Your task to perform on an android device: turn off picture-in-picture Image 0: 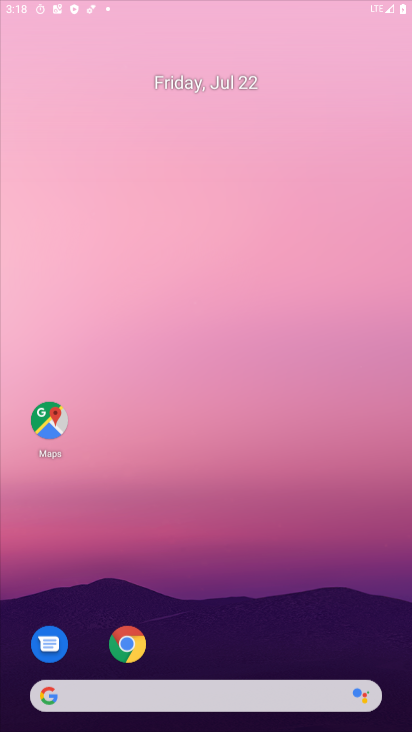
Step 0: press home button
Your task to perform on an android device: turn off picture-in-picture Image 1: 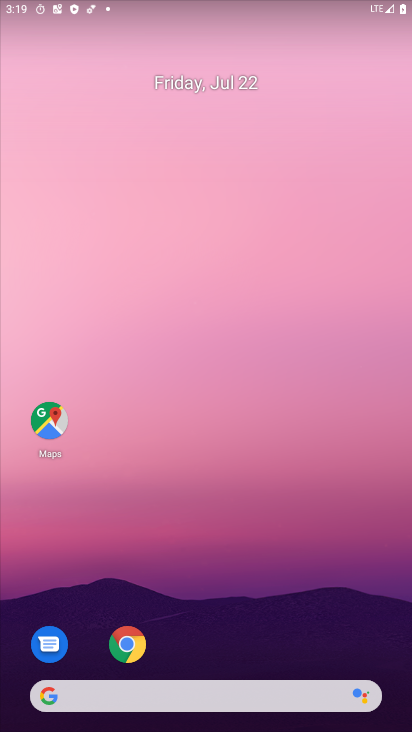
Step 1: click (128, 643)
Your task to perform on an android device: turn off picture-in-picture Image 2: 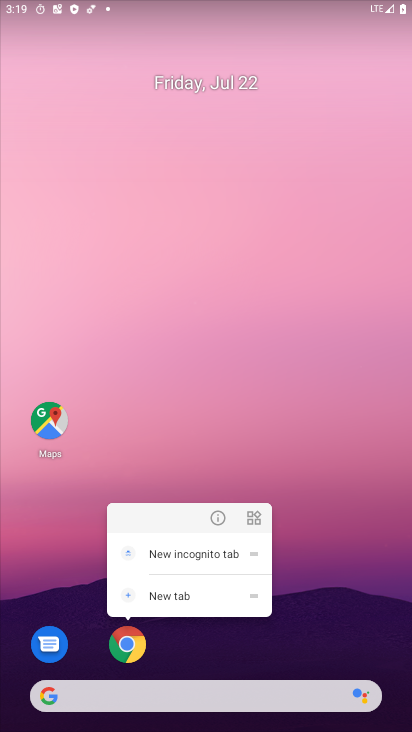
Step 2: click (222, 521)
Your task to perform on an android device: turn off picture-in-picture Image 3: 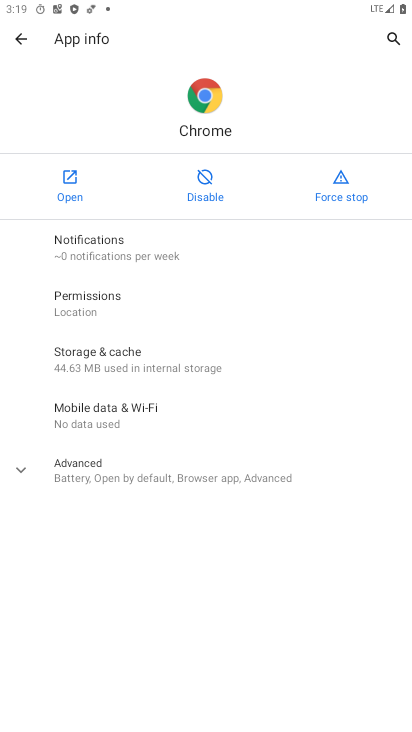
Step 3: click (80, 466)
Your task to perform on an android device: turn off picture-in-picture Image 4: 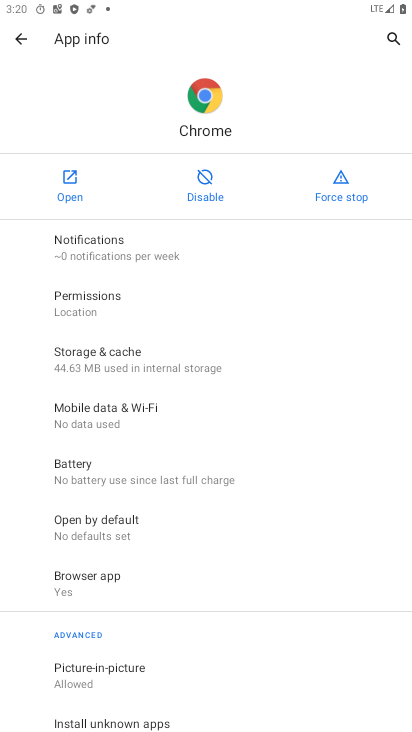
Step 4: click (71, 673)
Your task to perform on an android device: turn off picture-in-picture Image 5: 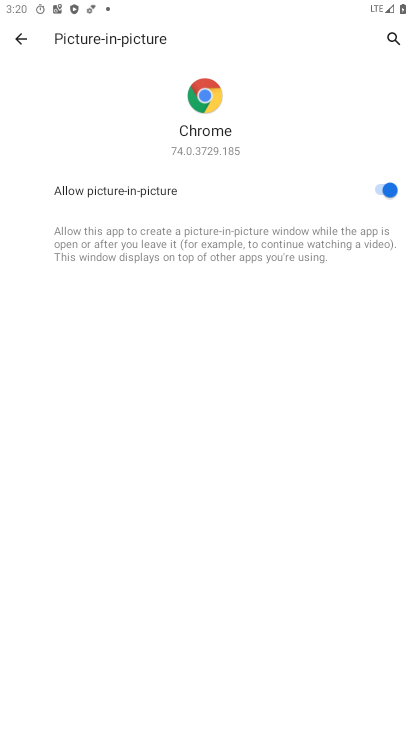
Step 5: click (395, 188)
Your task to perform on an android device: turn off picture-in-picture Image 6: 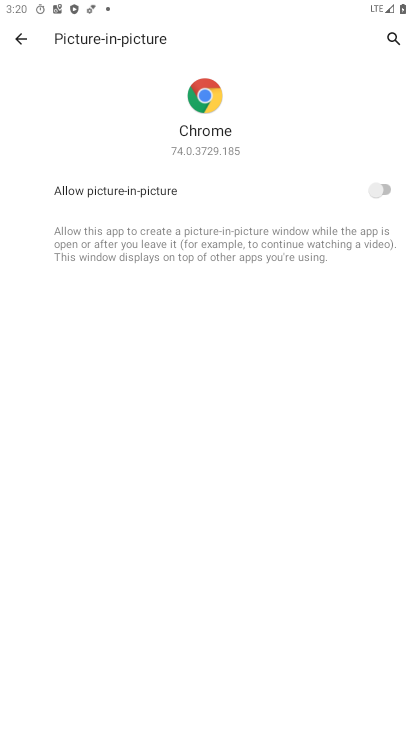
Step 6: task complete